Your task to perform on an android device: What's on my calendar today? Image 0: 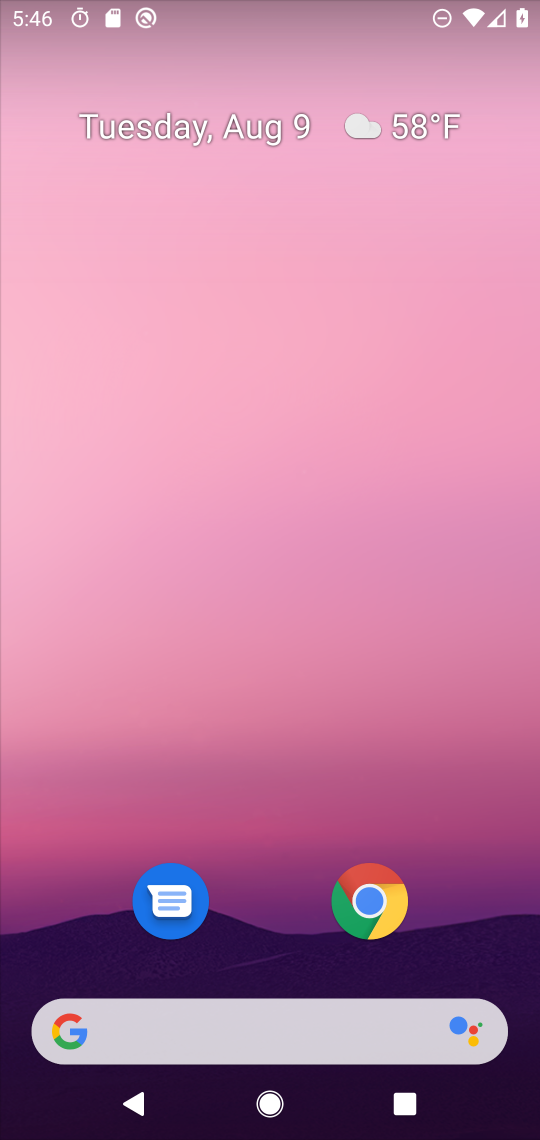
Step 0: press home button
Your task to perform on an android device: What's on my calendar today? Image 1: 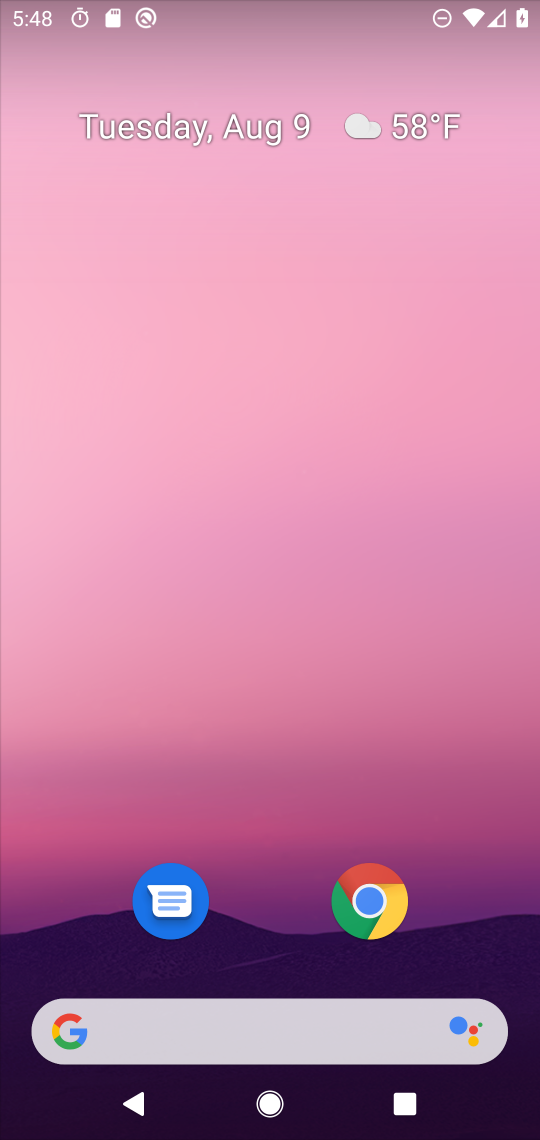
Step 1: drag from (300, 888) to (479, 0)
Your task to perform on an android device: What's on my calendar today? Image 2: 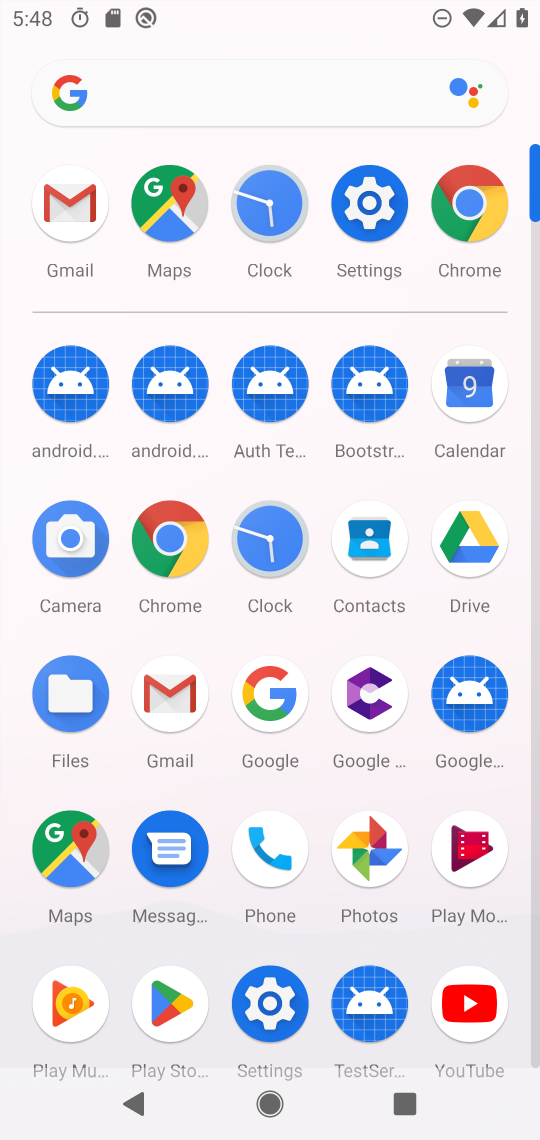
Step 2: click (462, 382)
Your task to perform on an android device: What's on my calendar today? Image 3: 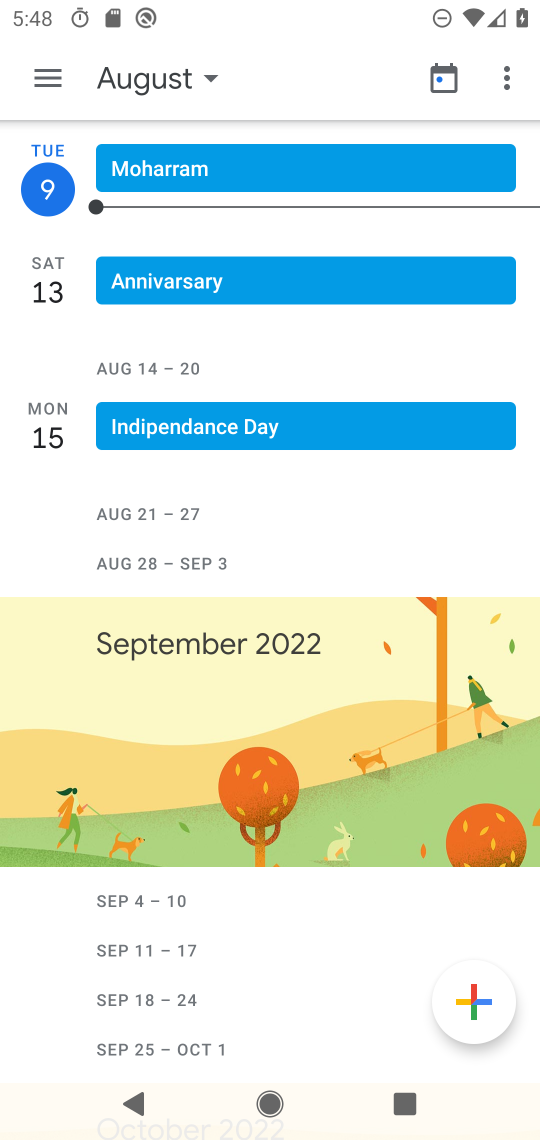
Step 3: click (187, 77)
Your task to perform on an android device: What's on my calendar today? Image 4: 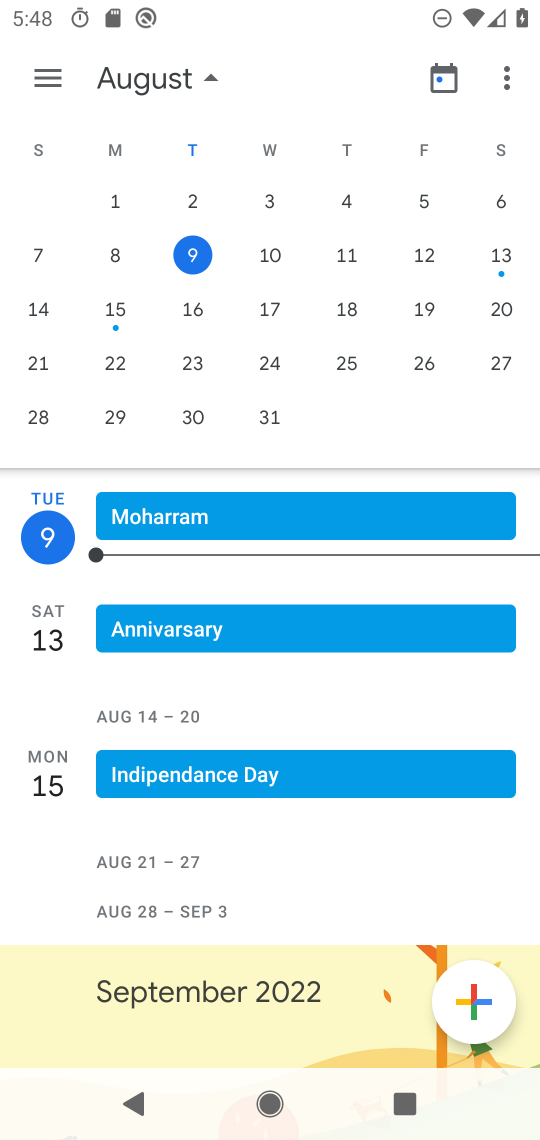
Step 4: task complete